Your task to perform on an android device: Open settings on Google Maps Image 0: 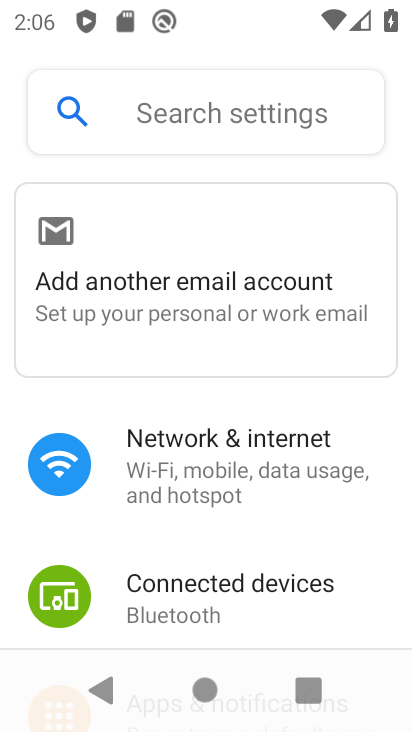
Step 0: press home button
Your task to perform on an android device: Open settings on Google Maps Image 1: 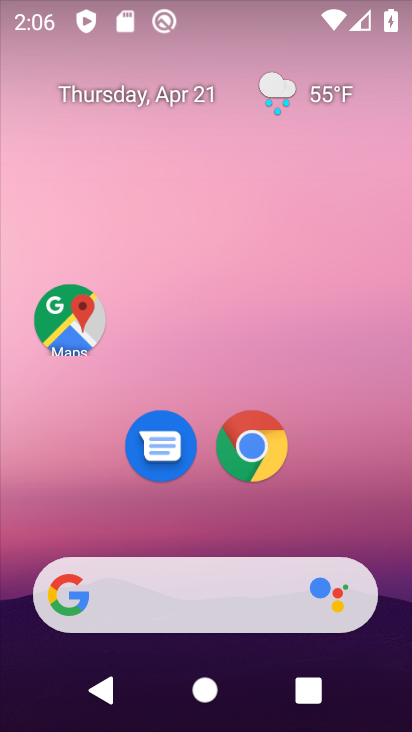
Step 1: drag from (221, 721) to (214, 167)
Your task to perform on an android device: Open settings on Google Maps Image 2: 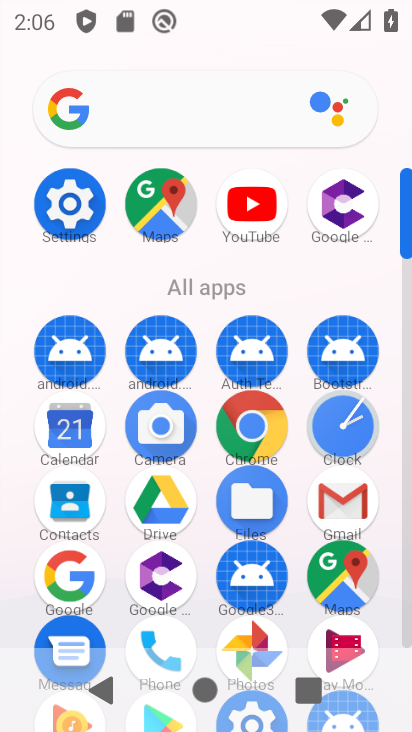
Step 2: click (157, 215)
Your task to perform on an android device: Open settings on Google Maps Image 3: 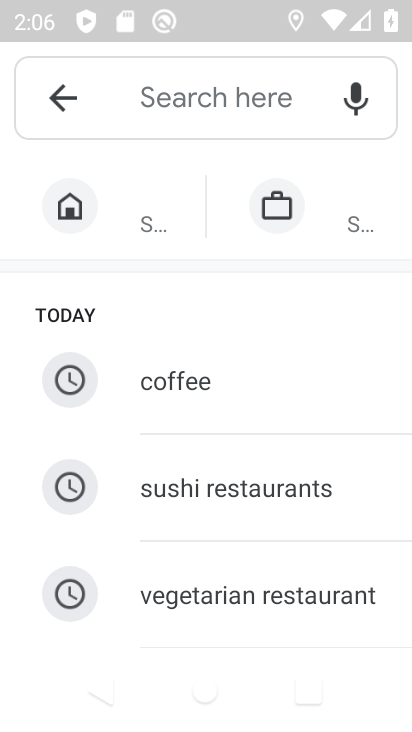
Step 3: click (58, 94)
Your task to perform on an android device: Open settings on Google Maps Image 4: 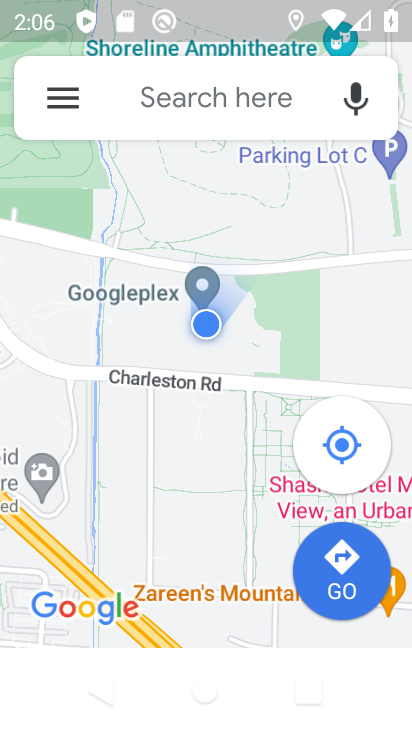
Step 4: click (59, 103)
Your task to perform on an android device: Open settings on Google Maps Image 5: 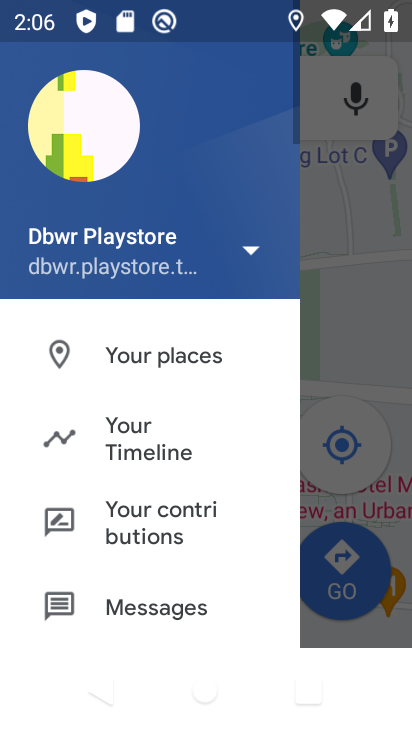
Step 5: drag from (155, 577) to (142, 316)
Your task to perform on an android device: Open settings on Google Maps Image 6: 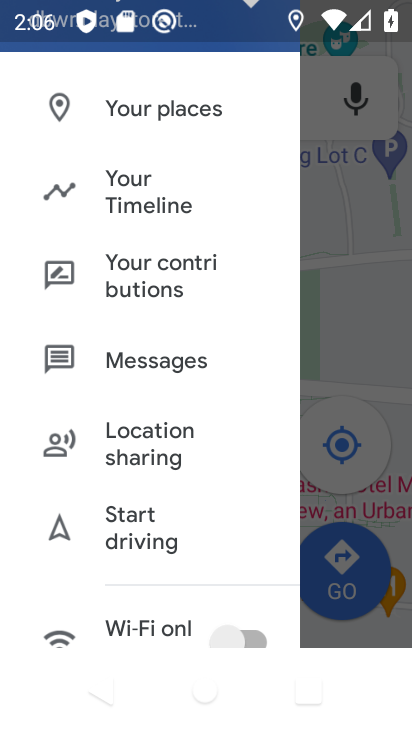
Step 6: drag from (166, 606) to (145, 153)
Your task to perform on an android device: Open settings on Google Maps Image 7: 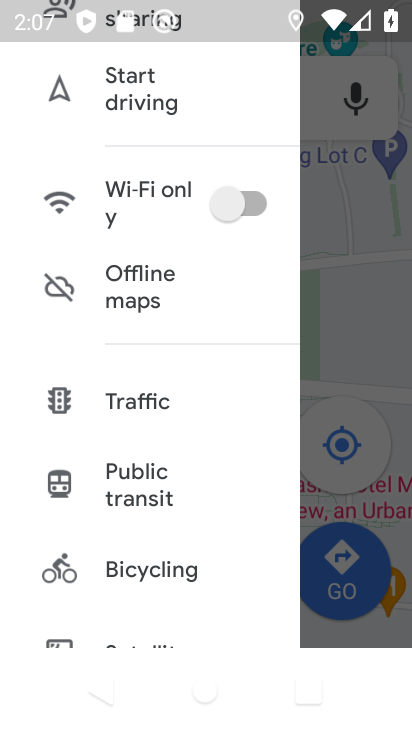
Step 7: drag from (145, 620) to (142, 260)
Your task to perform on an android device: Open settings on Google Maps Image 8: 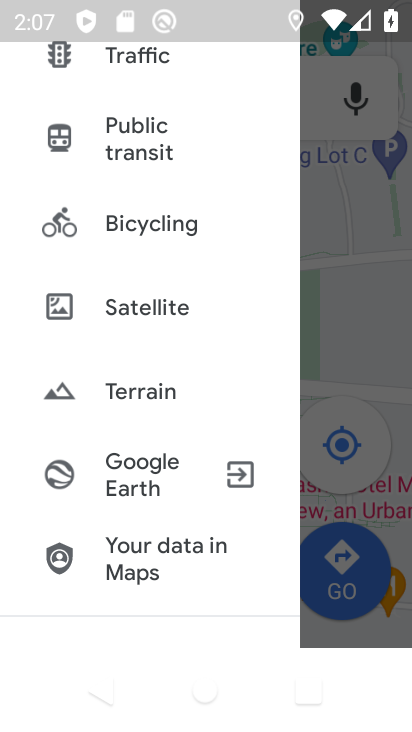
Step 8: drag from (140, 581) to (139, 177)
Your task to perform on an android device: Open settings on Google Maps Image 9: 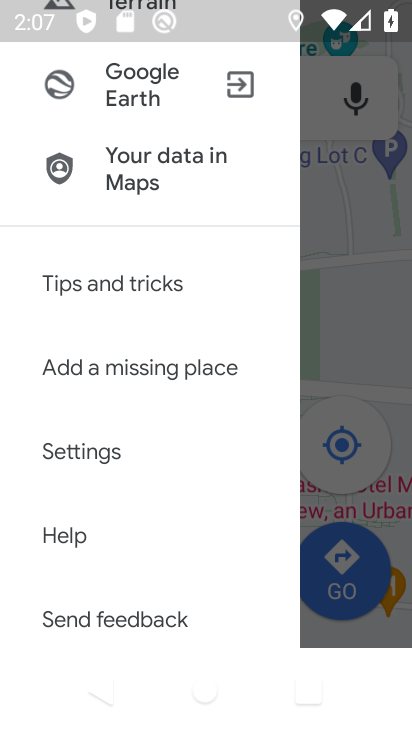
Step 9: click (81, 444)
Your task to perform on an android device: Open settings on Google Maps Image 10: 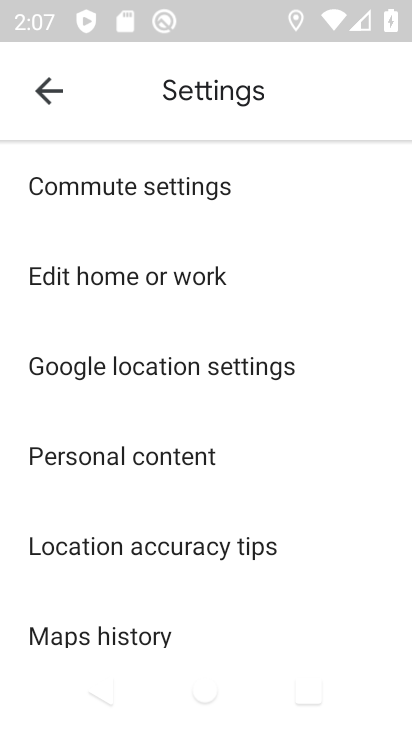
Step 10: task complete